Your task to perform on an android device: toggle notification dots Image 0: 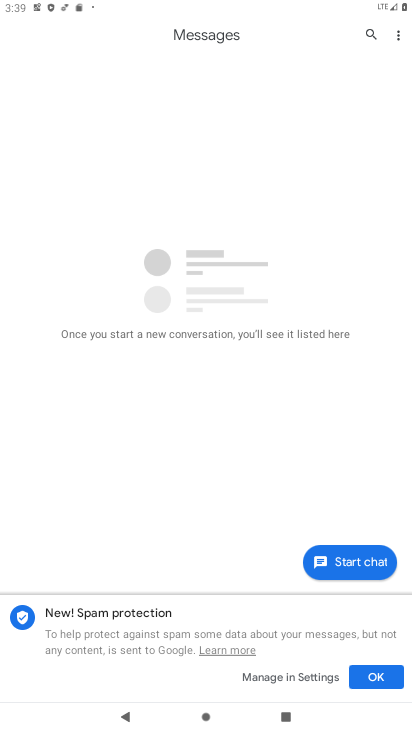
Step 0: press home button
Your task to perform on an android device: toggle notification dots Image 1: 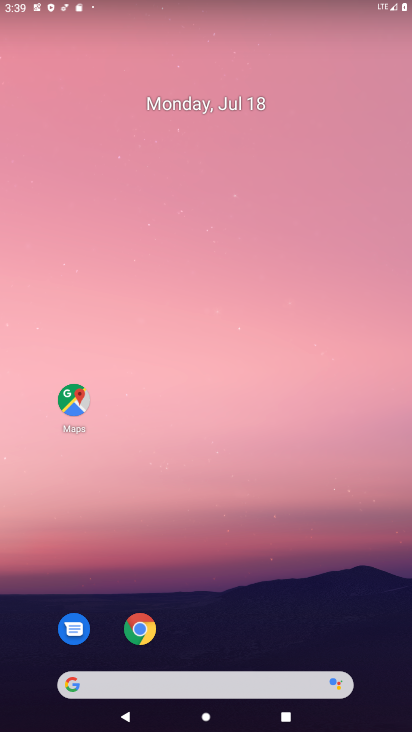
Step 1: drag from (220, 548) to (324, 0)
Your task to perform on an android device: toggle notification dots Image 2: 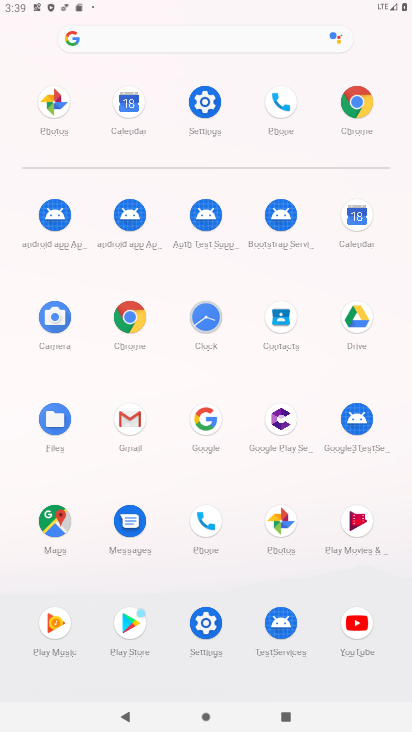
Step 2: click (201, 634)
Your task to perform on an android device: toggle notification dots Image 3: 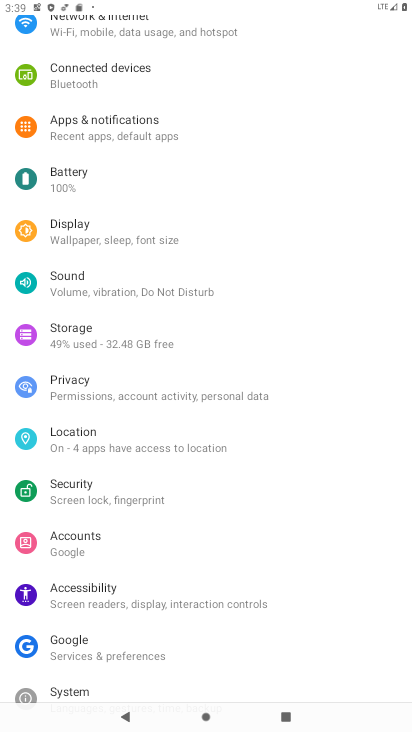
Step 3: click (133, 137)
Your task to perform on an android device: toggle notification dots Image 4: 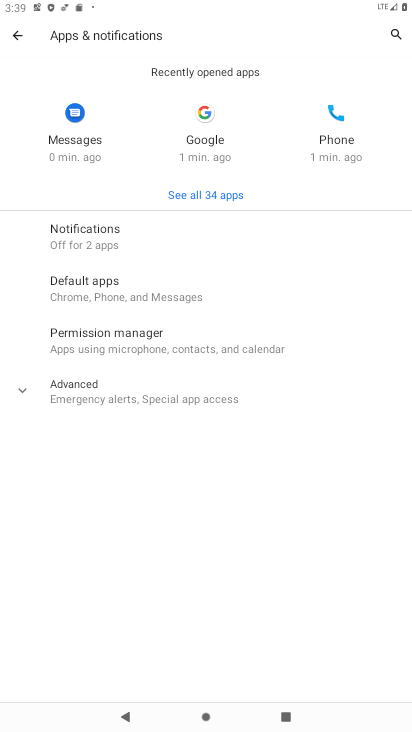
Step 4: click (114, 235)
Your task to perform on an android device: toggle notification dots Image 5: 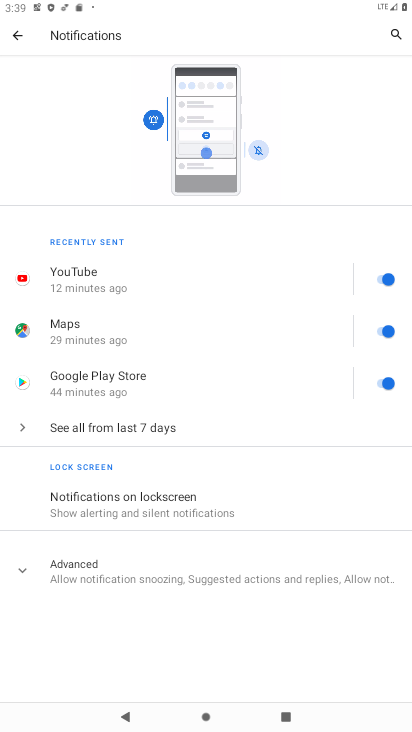
Step 5: task complete